Your task to perform on an android device: change text size in settings app Image 0: 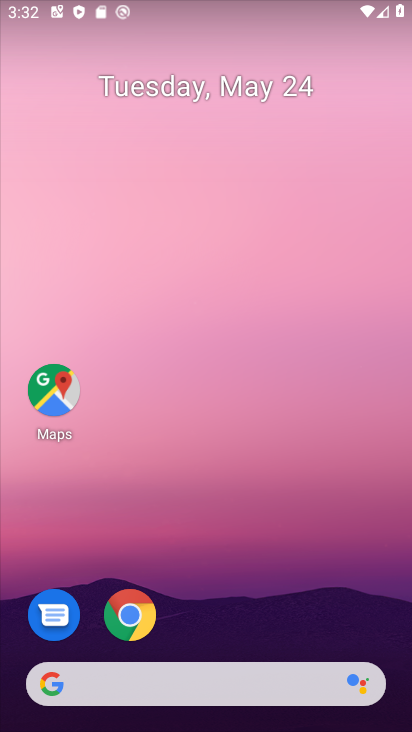
Step 0: drag from (214, 721) to (178, 111)
Your task to perform on an android device: change text size in settings app Image 1: 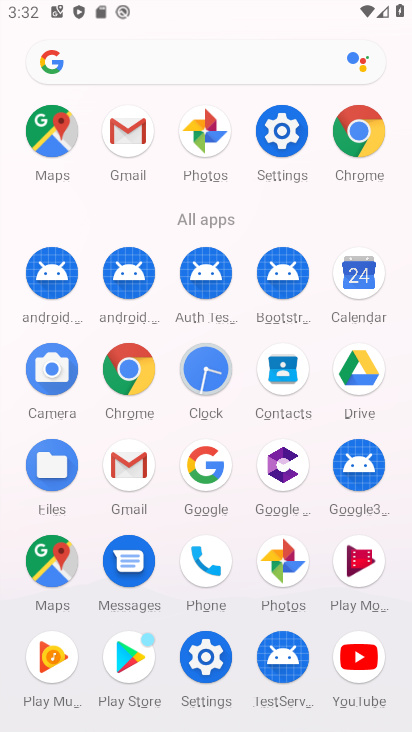
Step 1: click (204, 653)
Your task to perform on an android device: change text size in settings app Image 2: 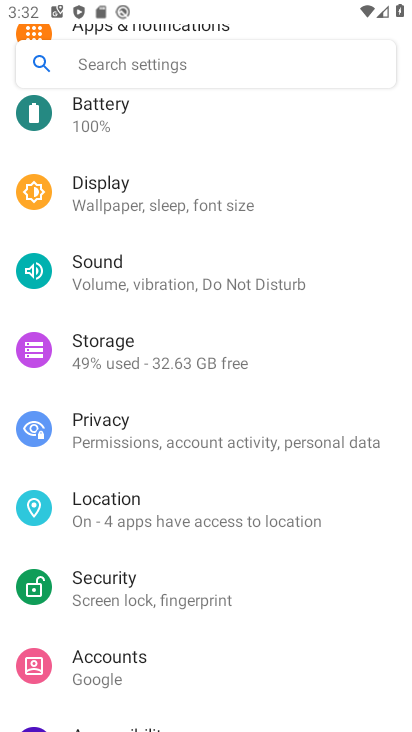
Step 2: click (162, 202)
Your task to perform on an android device: change text size in settings app Image 3: 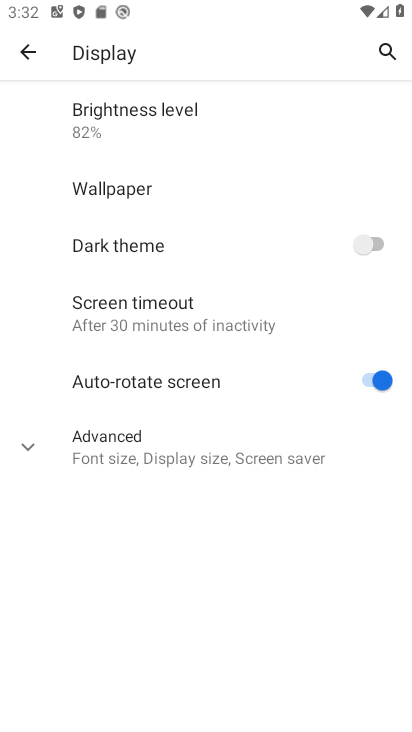
Step 3: click (126, 451)
Your task to perform on an android device: change text size in settings app Image 4: 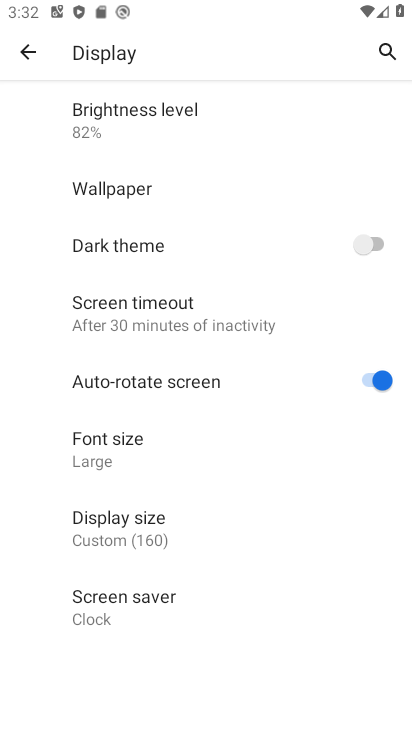
Step 4: click (100, 455)
Your task to perform on an android device: change text size in settings app Image 5: 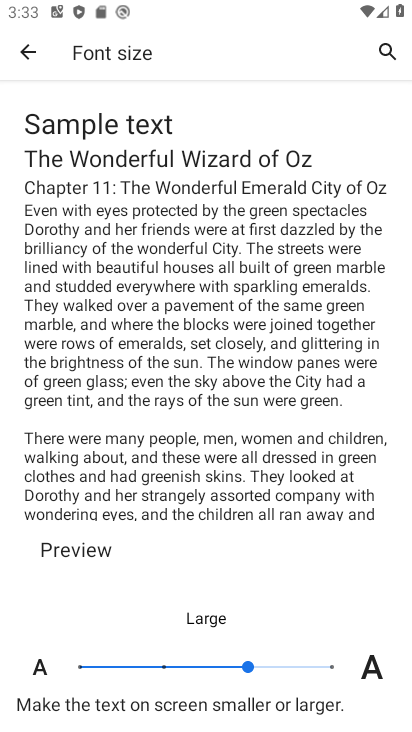
Step 5: click (164, 663)
Your task to perform on an android device: change text size in settings app Image 6: 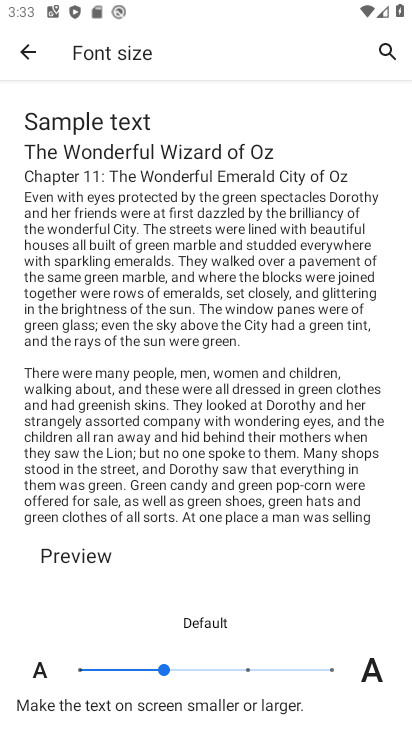
Step 6: task complete